Your task to perform on an android device: move a message to another label in the gmail app Image 0: 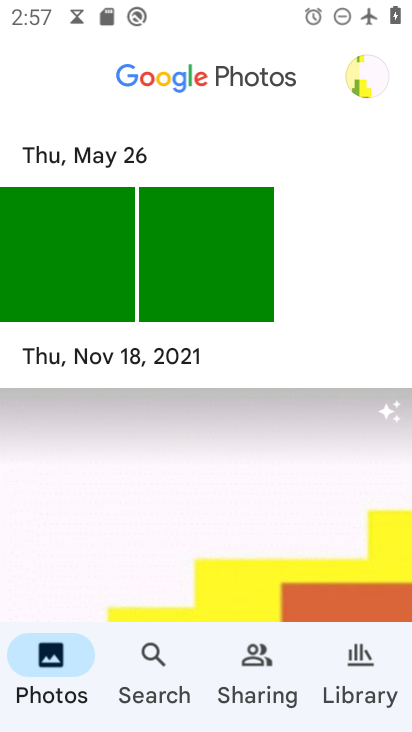
Step 0: press home button
Your task to perform on an android device: move a message to another label in the gmail app Image 1: 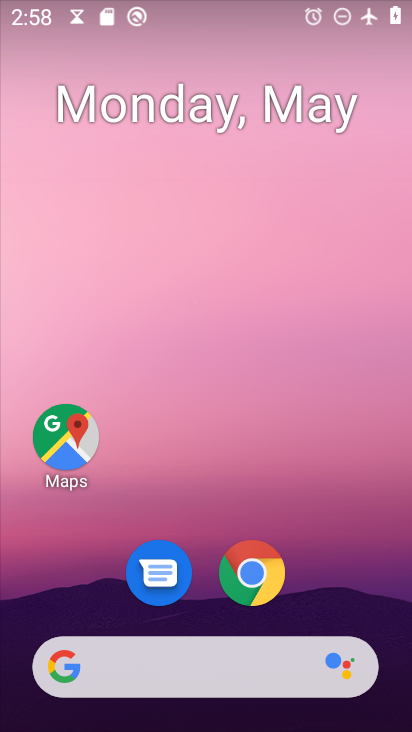
Step 1: drag from (289, 675) to (371, 110)
Your task to perform on an android device: move a message to another label in the gmail app Image 2: 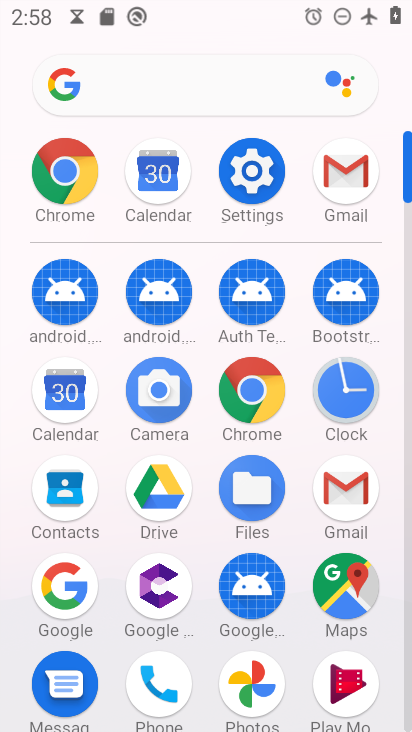
Step 2: click (359, 484)
Your task to perform on an android device: move a message to another label in the gmail app Image 3: 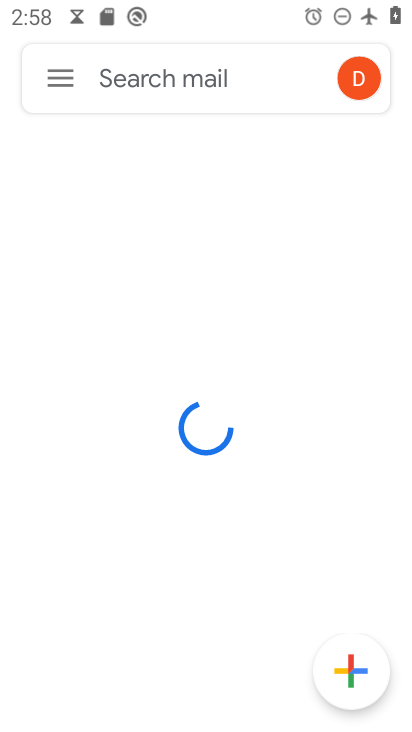
Step 3: click (63, 75)
Your task to perform on an android device: move a message to another label in the gmail app Image 4: 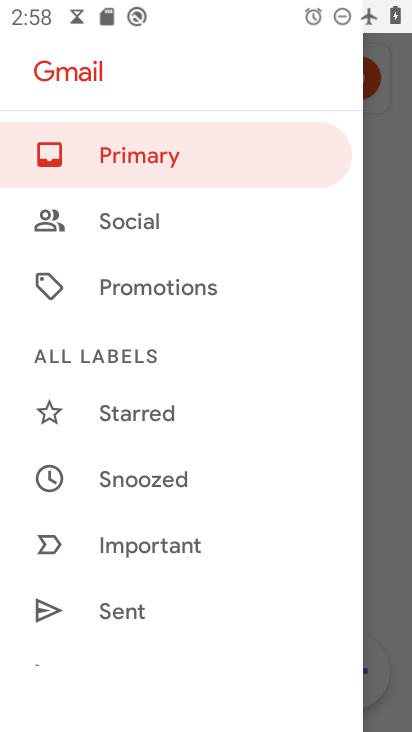
Step 4: task complete